Your task to perform on an android device: Open ESPN.com Image 0: 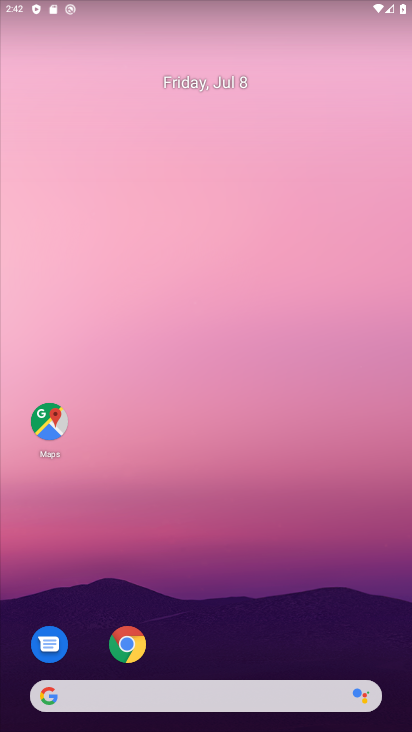
Step 0: click (125, 647)
Your task to perform on an android device: Open ESPN.com Image 1: 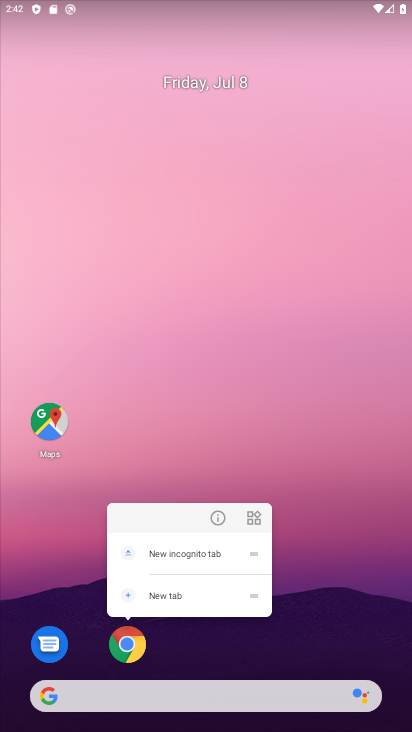
Step 1: click (125, 647)
Your task to perform on an android device: Open ESPN.com Image 2: 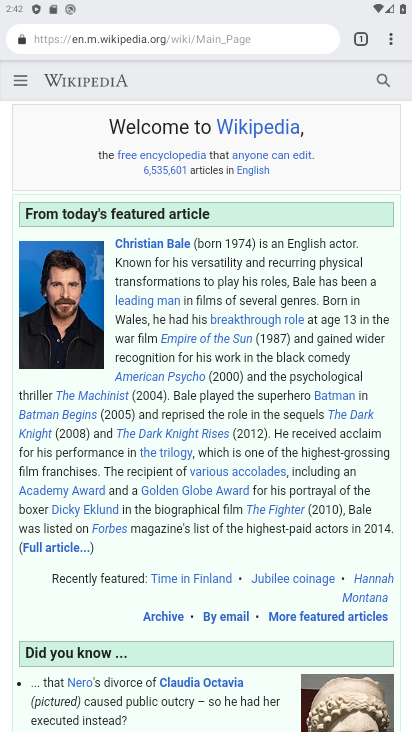
Step 2: drag from (392, 30) to (355, 70)
Your task to perform on an android device: Open ESPN.com Image 3: 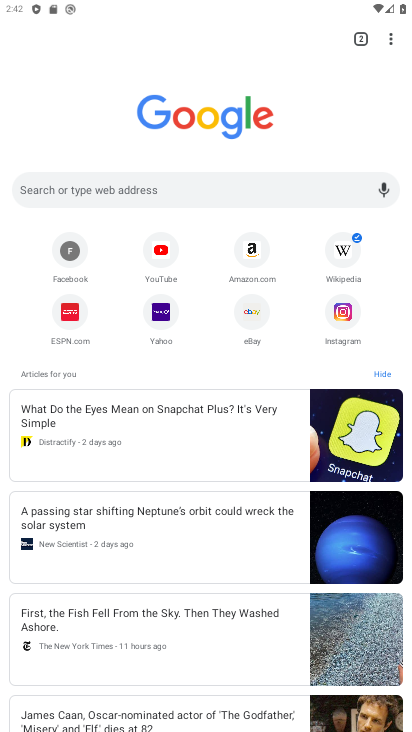
Step 3: click (89, 321)
Your task to perform on an android device: Open ESPN.com Image 4: 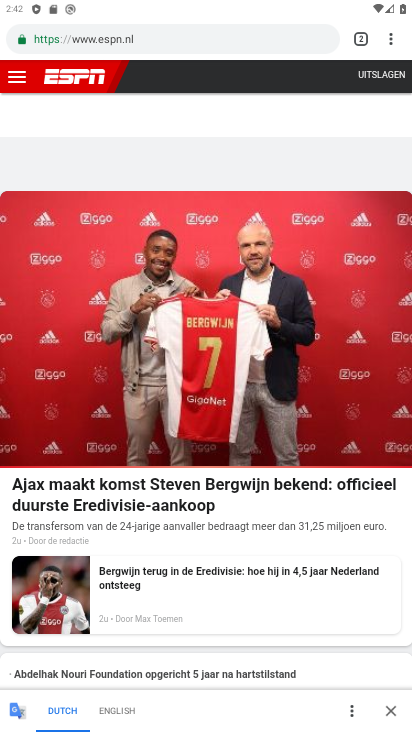
Step 4: task complete